Your task to perform on an android device: toggle wifi Image 0: 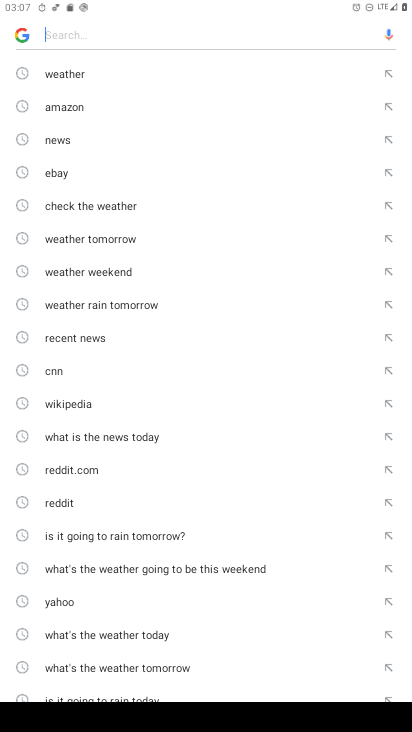
Step 0: press home button
Your task to perform on an android device: toggle wifi Image 1: 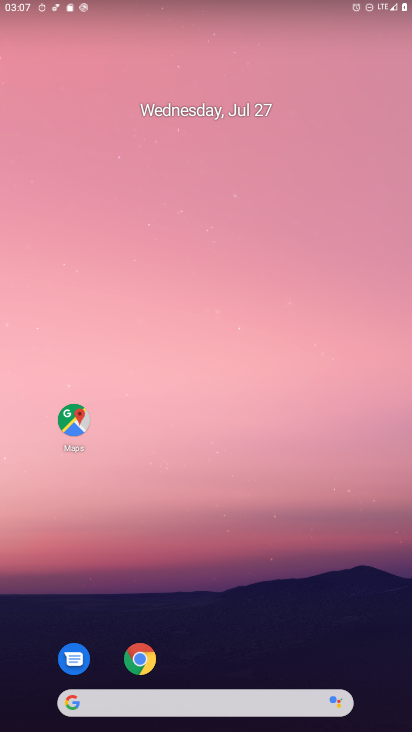
Step 1: drag from (254, 519) to (230, 0)
Your task to perform on an android device: toggle wifi Image 2: 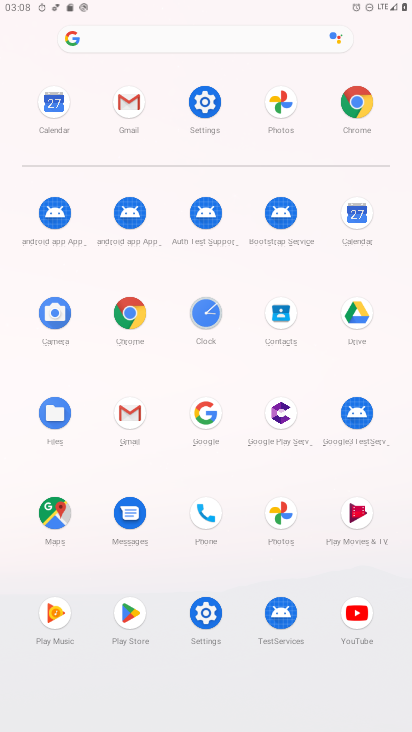
Step 2: click (204, 94)
Your task to perform on an android device: toggle wifi Image 3: 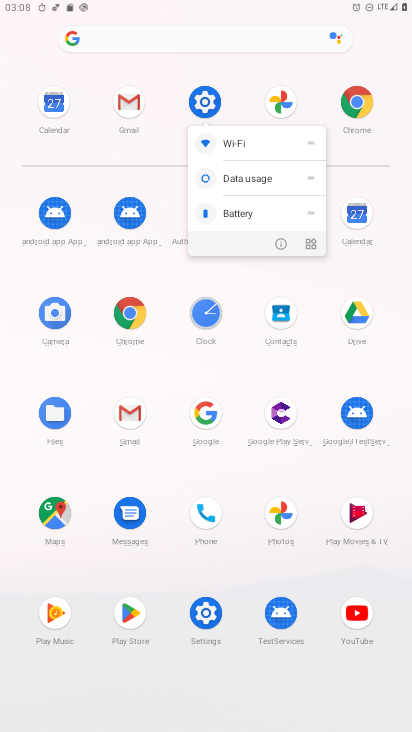
Step 3: click (203, 107)
Your task to perform on an android device: toggle wifi Image 4: 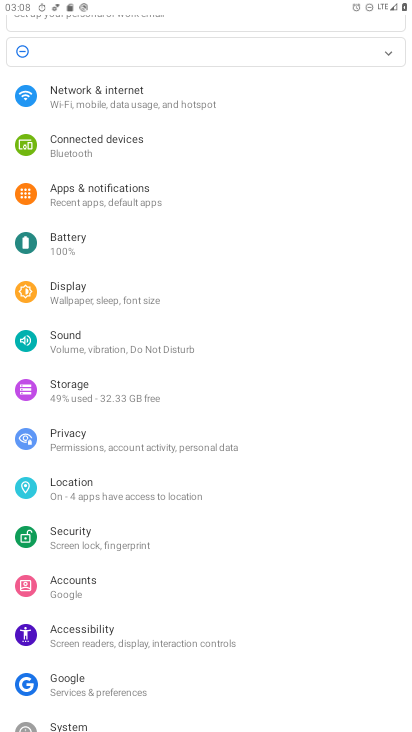
Step 4: click (142, 99)
Your task to perform on an android device: toggle wifi Image 5: 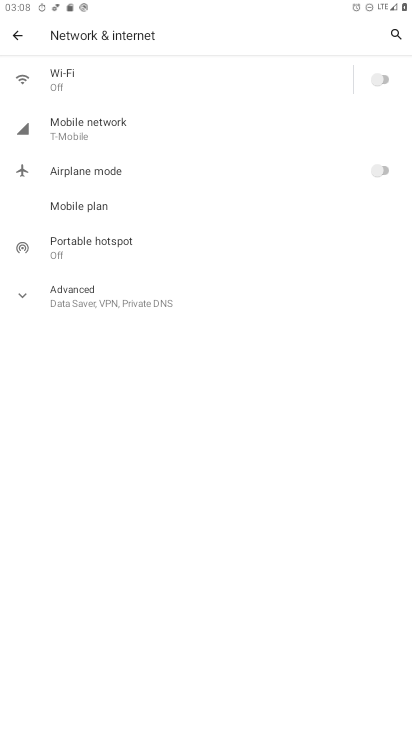
Step 5: click (289, 72)
Your task to perform on an android device: toggle wifi Image 6: 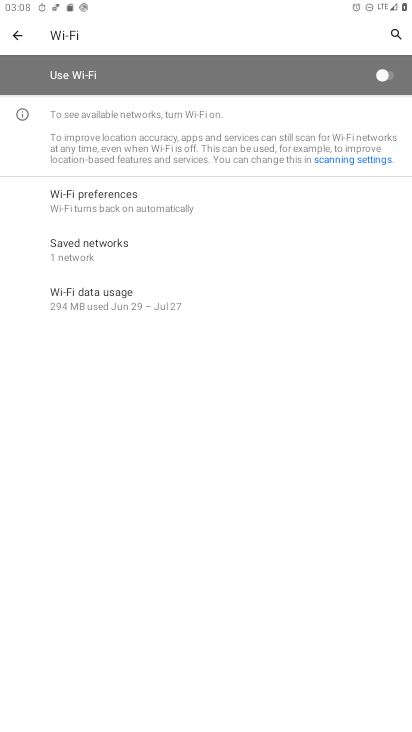
Step 6: click (385, 76)
Your task to perform on an android device: toggle wifi Image 7: 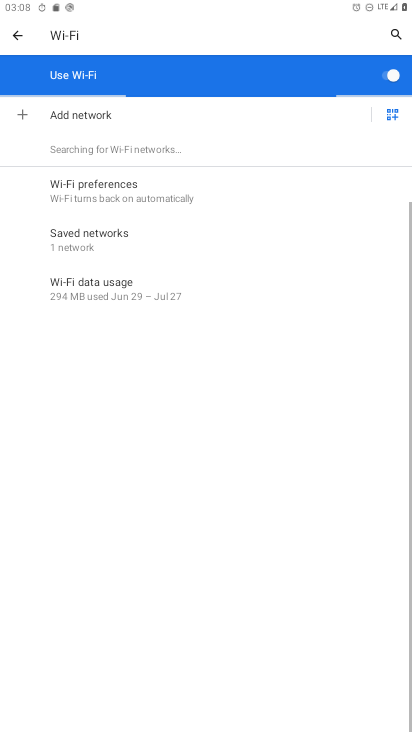
Step 7: task complete